Your task to perform on an android device: What's on my calendar tomorrow? Image 0: 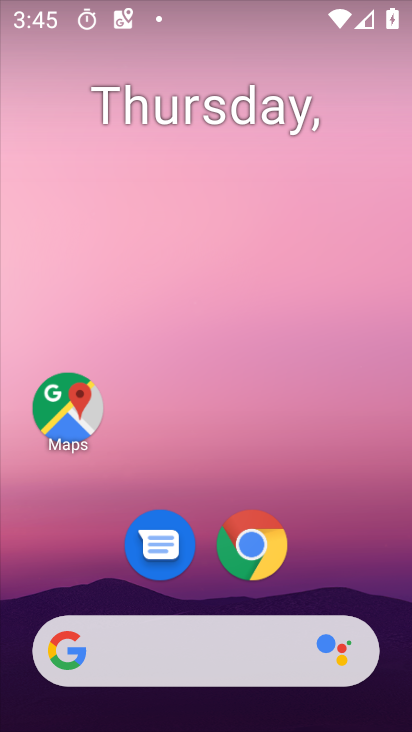
Step 0: drag from (233, 729) to (233, 215)
Your task to perform on an android device: What's on my calendar tomorrow? Image 1: 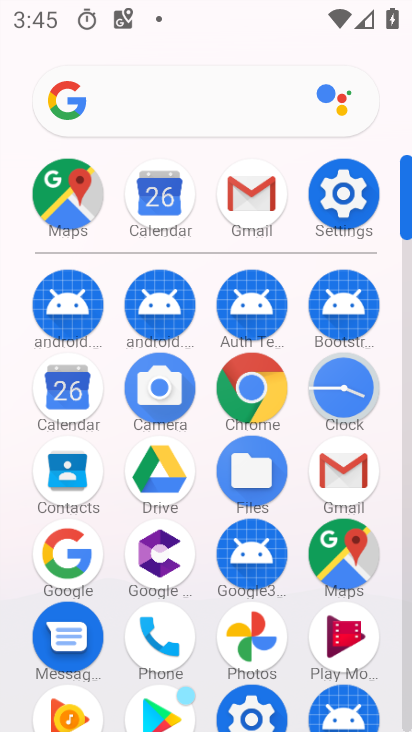
Step 1: click (63, 398)
Your task to perform on an android device: What's on my calendar tomorrow? Image 2: 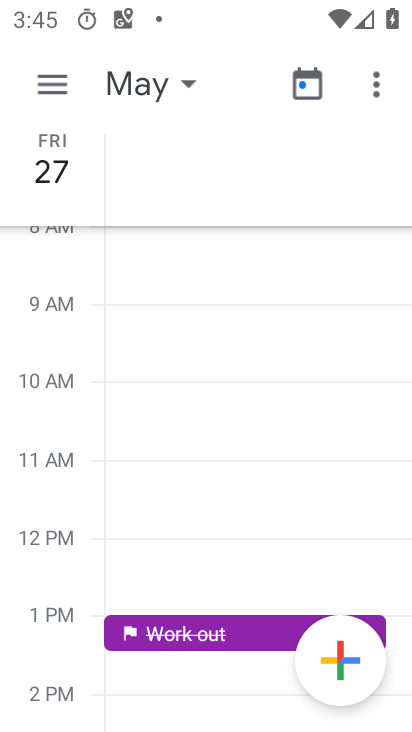
Step 2: click (184, 77)
Your task to perform on an android device: What's on my calendar tomorrow? Image 3: 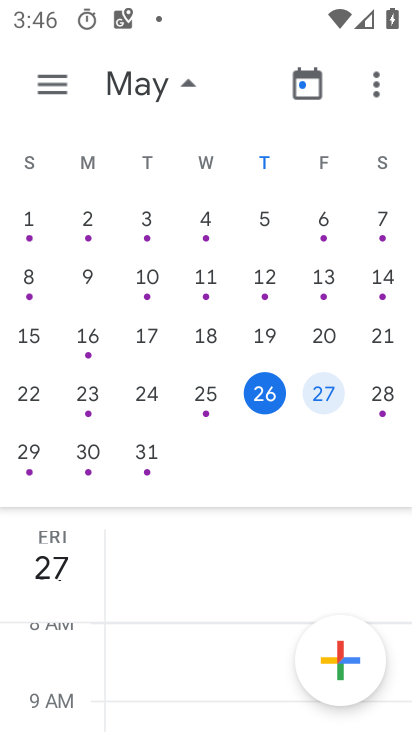
Step 3: click (319, 389)
Your task to perform on an android device: What's on my calendar tomorrow? Image 4: 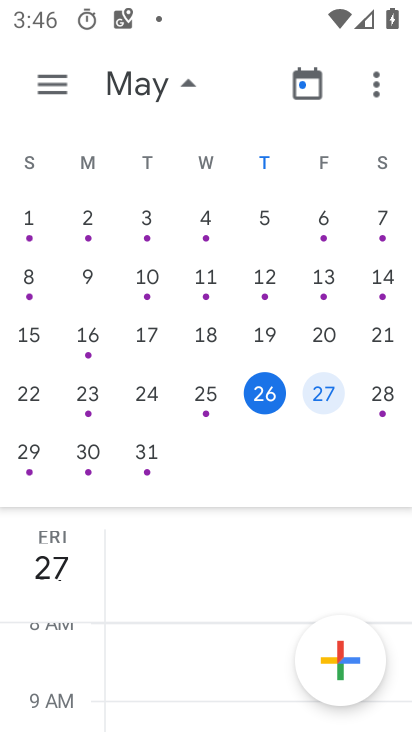
Step 4: click (322, 389)
Your task to perform on an android device: What's on my calendar tomorrow? Image 5: 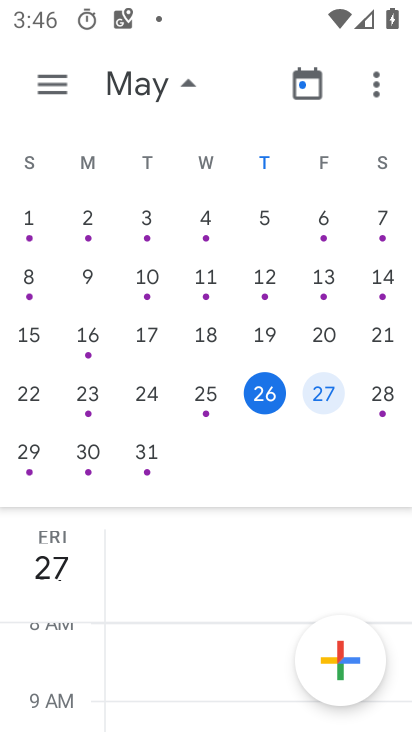
Step 5: click (320, 388)
Your task to perform on an android device: What's on my calendar tomorrow? Image 6: 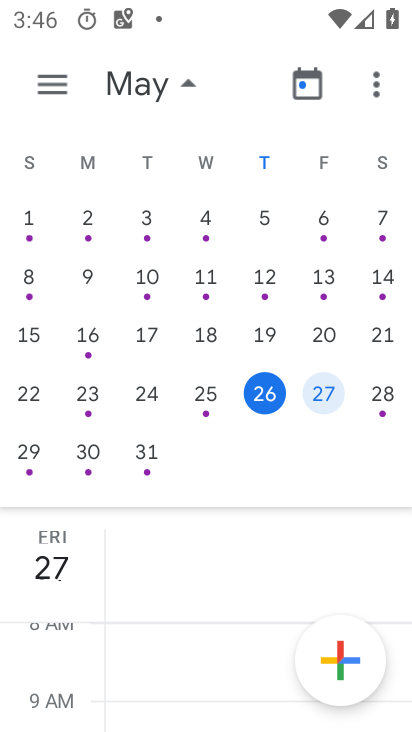
Step 6: click (54, 539)
Your task to perform on an android device: What's on my calendar tomorrow? Image 7: 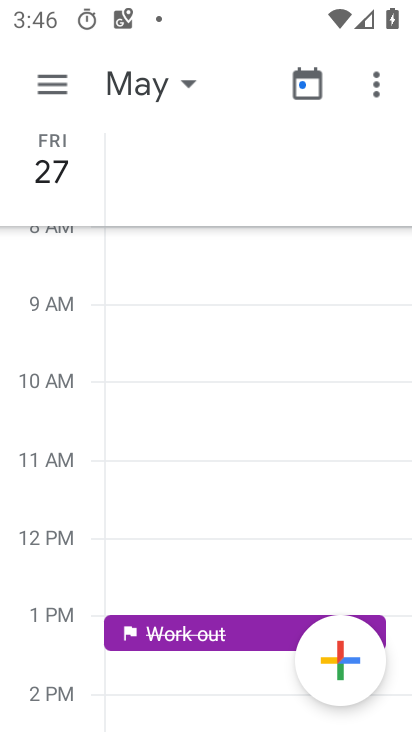
Step 7: task complete